Your task to perform on an android device: toggle priority inbox in the gmail app Image 0: 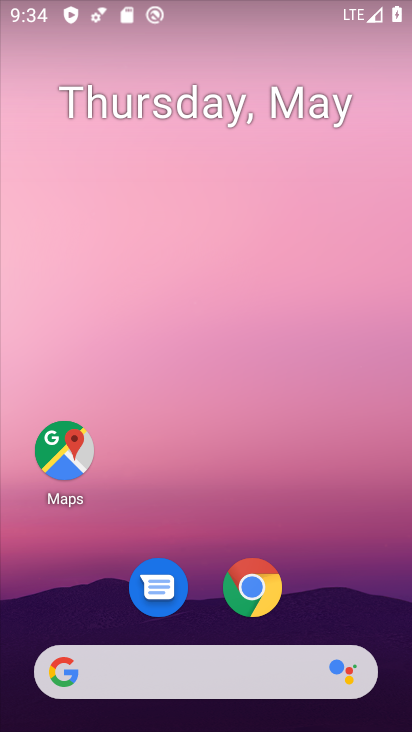
Step 0: drag from (331, 624) to (308, 28)
Your task to perform on an android device: toggle priority inbox in the gmail app Image 1: 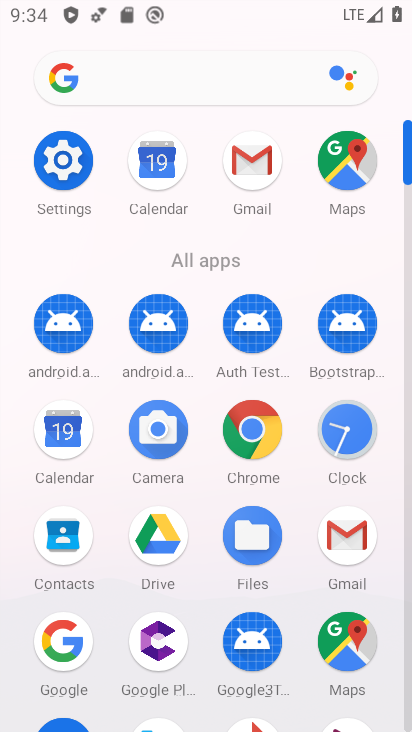
Step 1: click (255, 171)
Your task to perform on an android device: toggle priority inbox in the gmail app Image 2: 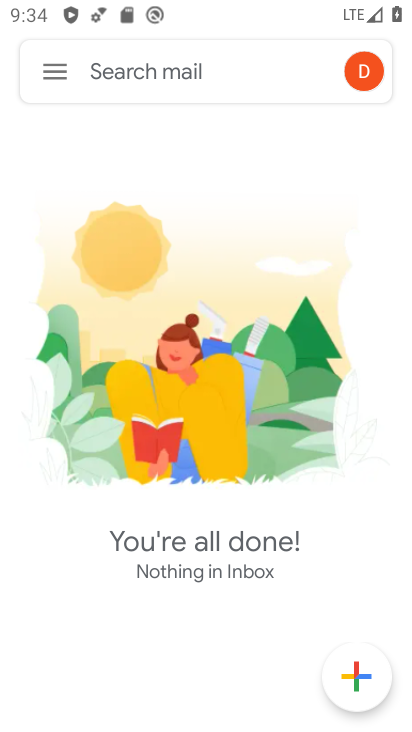
Step 2: click (58, 76)
Your task to perform on an android device: toggle priority inbox in the gmail app Image 3: 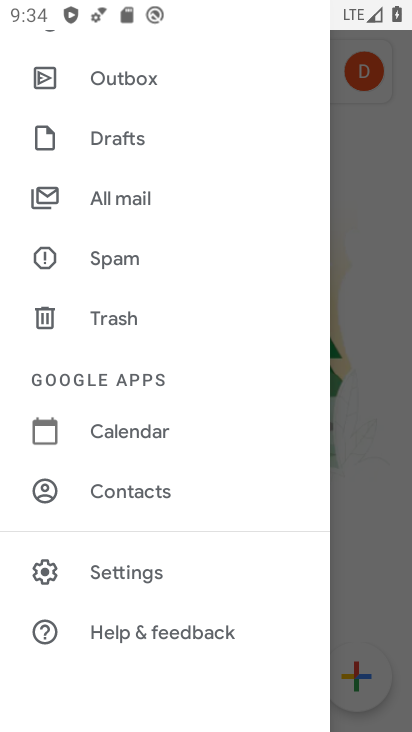
Step 3: click (159, 579)
Your task to perform on an android device: toggle priority inbox in the gmail app Image 4: 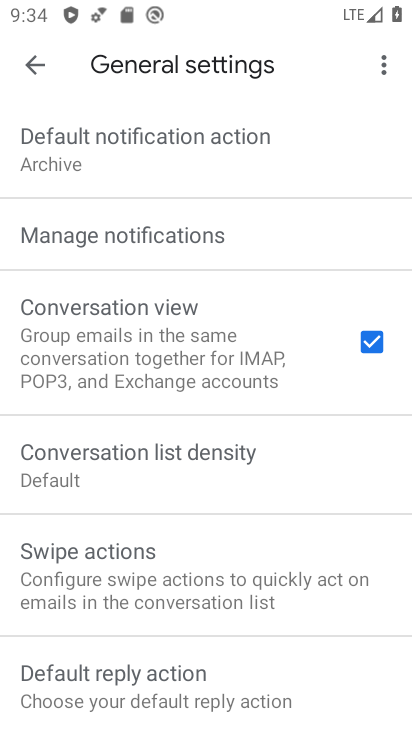
Step 4: click (39, 68)
Your task to perform on an android device: toggle priority inbox in the gmail app Image 5: 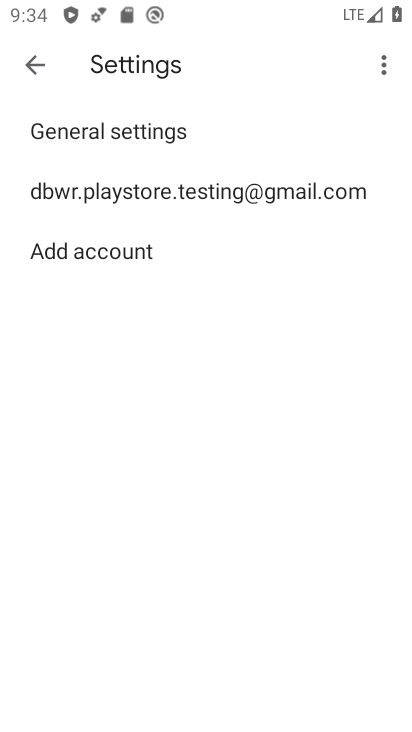
Step 5: click (73, 195)
Your task to perform on an android device: toggle priority inbox in the gmail app Image 6: 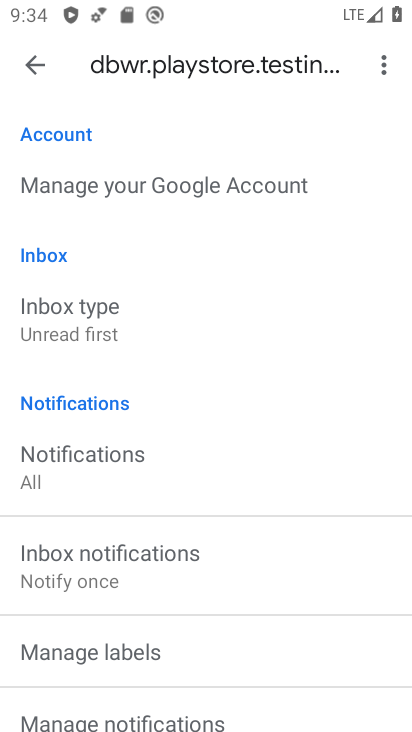
Step 6: click (55, 319)
Your task to perform on an android device: toggle priority inbox in the gmail app Image 7: 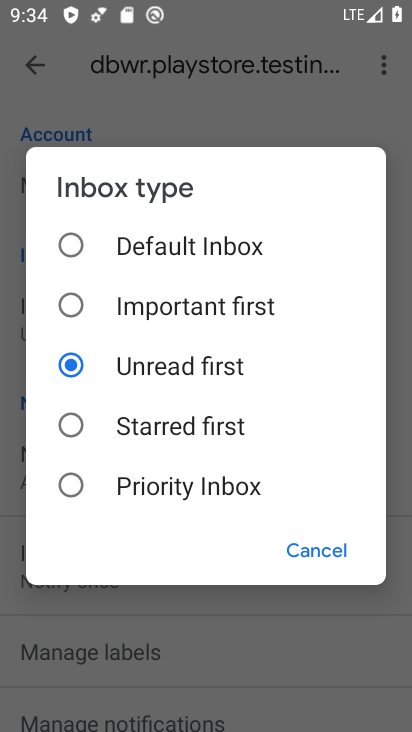
Step 7: click (78, 485)
Your task to perform on an android device: toggle priority inbox in the gmail app Image 8: 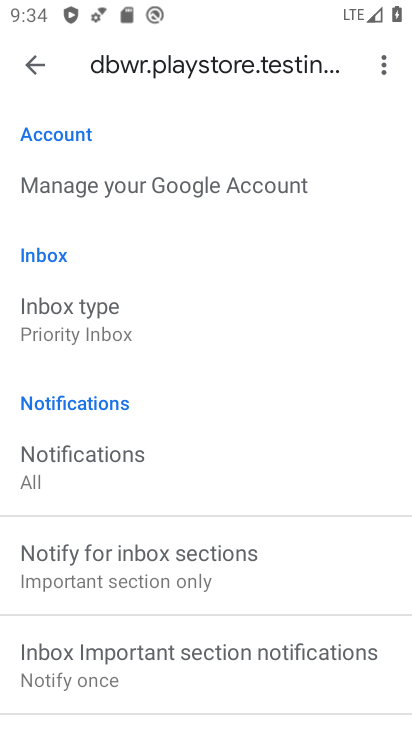
Step 8: task complete